Your task to perform on an android device: Go to internet settings Image 0: 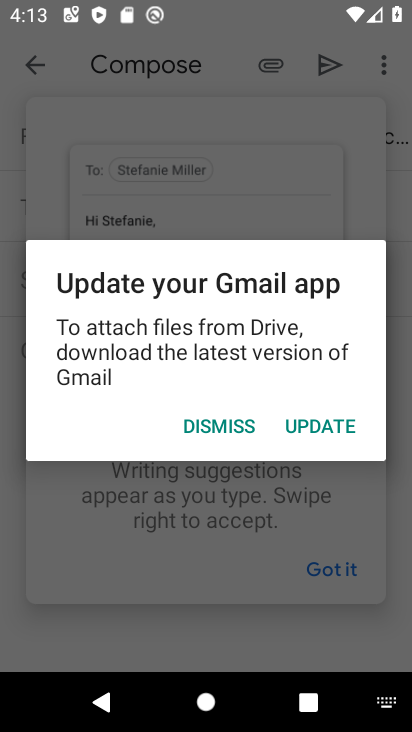
Step 0: press home button
Your task to perform on an android device: Go to internet settings Image 1: 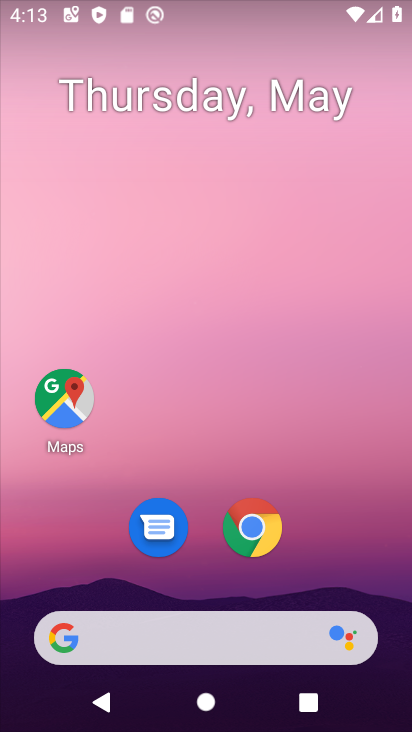
Step 1: drag from (333, 543) to (294, 19)
Your task to perform on an android device: Go to internet settings Image 2: 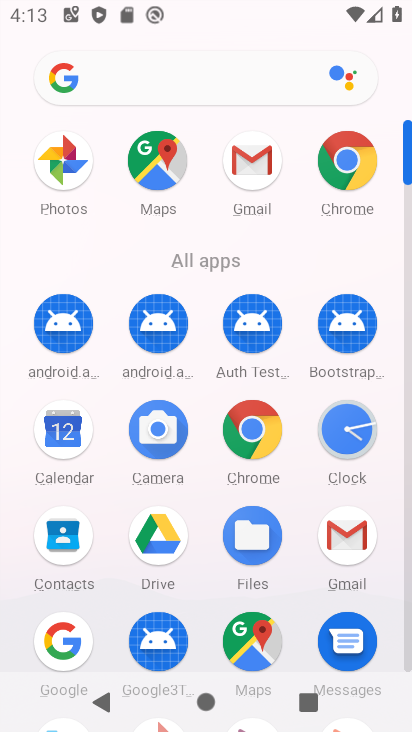
Step 2: click (317, 149)
Your task to perform on an android device: Go to internet settings Image 3: 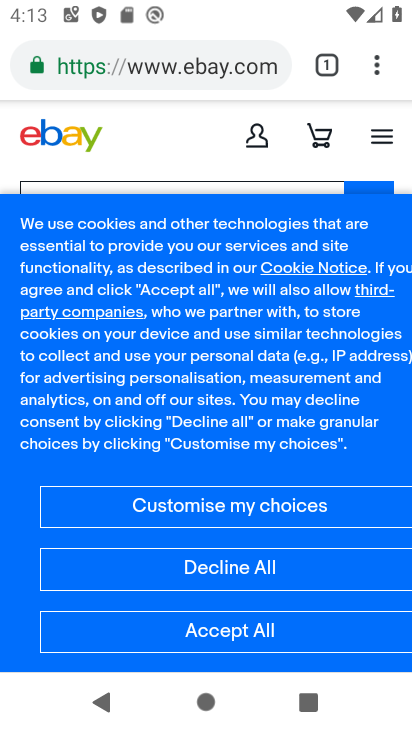
Step 3: press home button
Your task to perform on an android device: Go to internet settings Image 4: 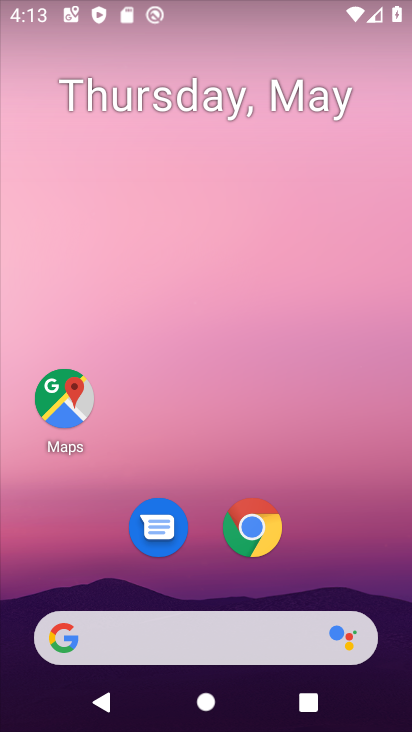
Step 4: drag from (373, 534) to (398, 46)
Your task to perform on an android device: Go to internet settings Image 5: 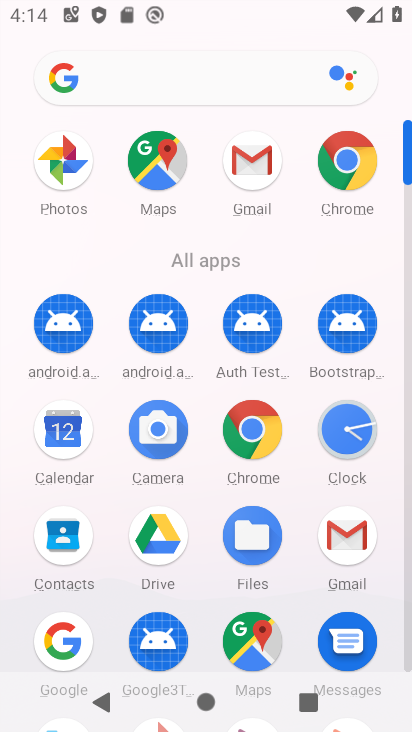
Step 5: drag from (380, 524) to (409, 277)
Your task to perform on an android device: Go to internet settings Image 6: 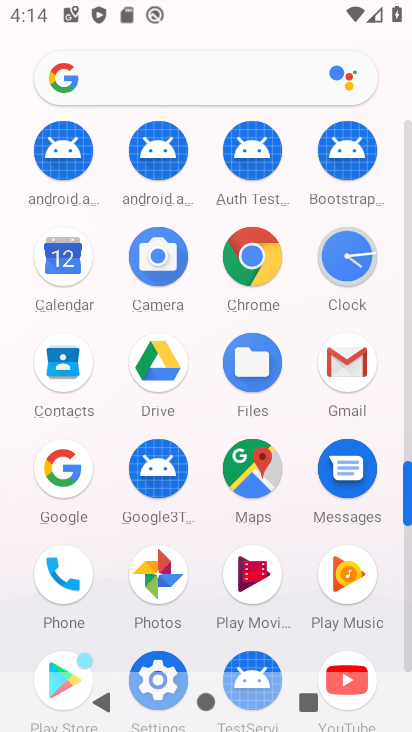
Step 6: click (165, 649)
Your task to perform on an android device: Go to internet settings Image 7: 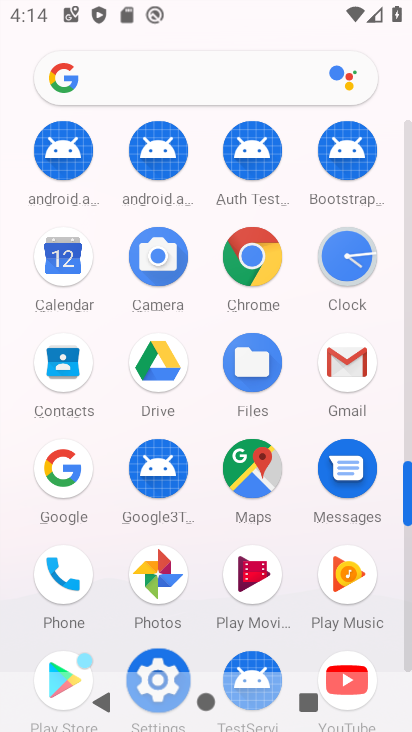
Step 7: click (164, 658)
Your task to perform on an android device: Go to internet settings Image 8: 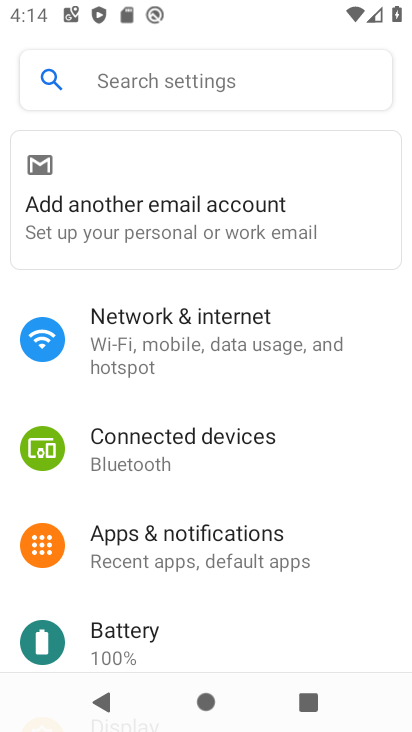
Step 8: click (188, 313)
Your task to perform on an android device: Go to internet settings Image 9: 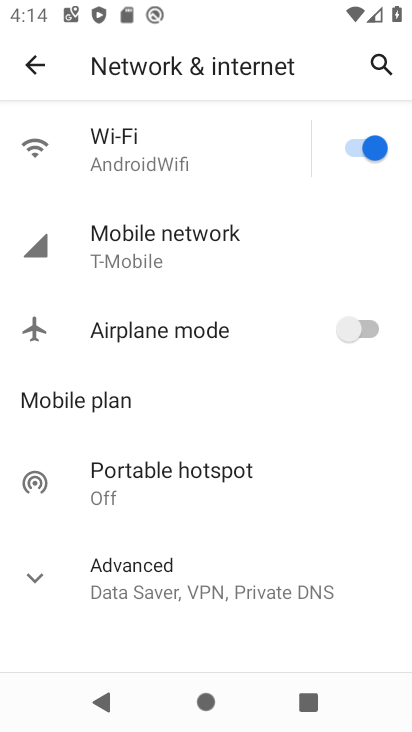
Step 9: click (184, 243)
Your task to perform on an android device: Go to internet settings Image 10: 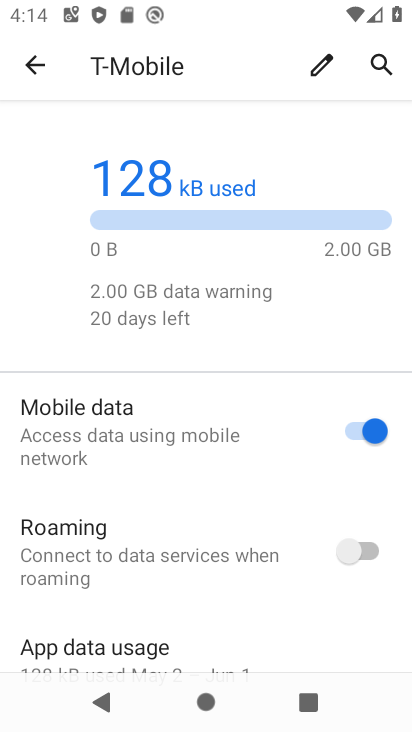
Step 10: task complete